Your task to perform on an android device: turn on wifi Image 0: 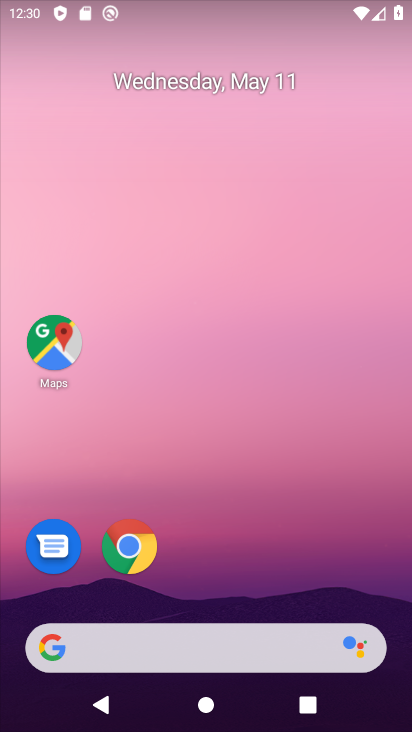
Step 0: drag from (251, 686) to (190, 313)
Your task to perform on an android device: turn on wifi Image 1: 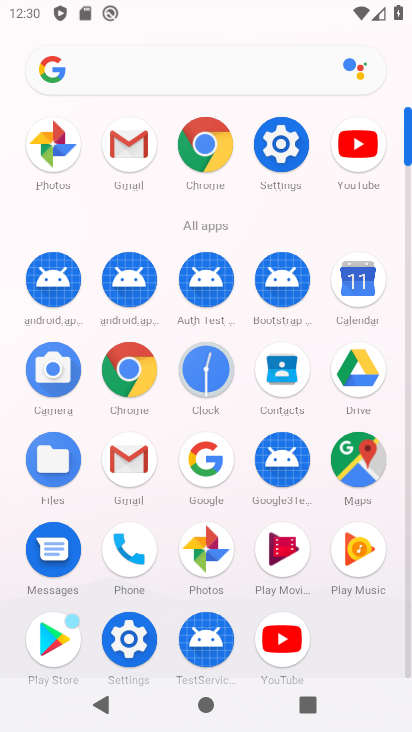
Step 1: click (271, 161)
Your task to perform on an android device: turn on wifi Image 2: 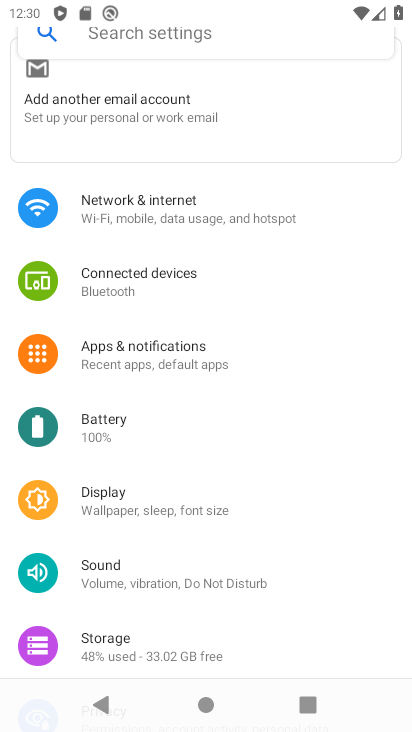
Step 2: click (157, 196)
Your task to perform on an android device: turn on wifi Image 3: 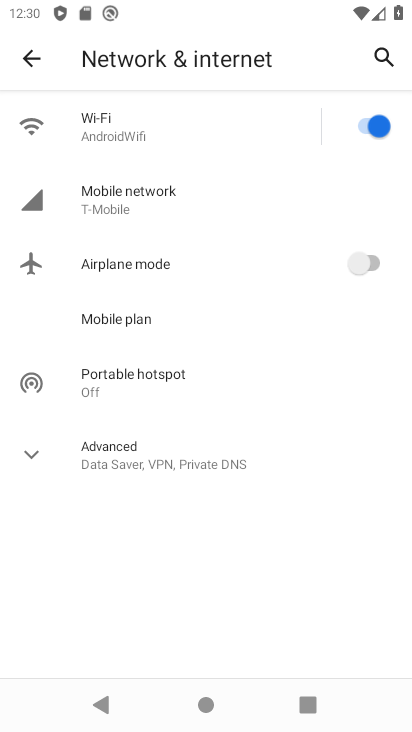
Step 3: click (161, 136)
Your task to perform on an android device: turn on wifi Image 4: 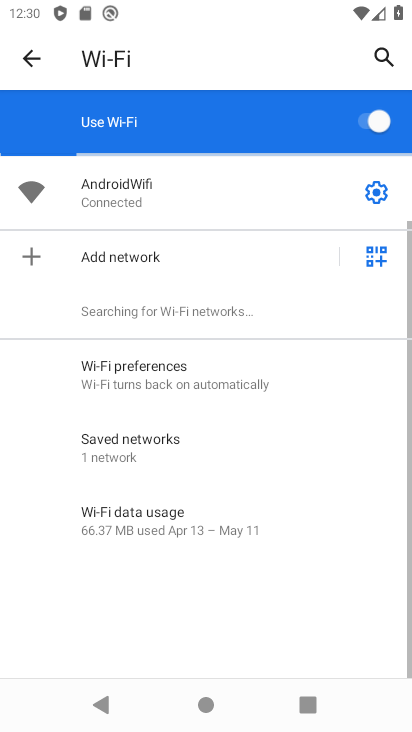
Step 4: click (380, 118)
Your task to perform on an android device: turn on wifi Image 5: 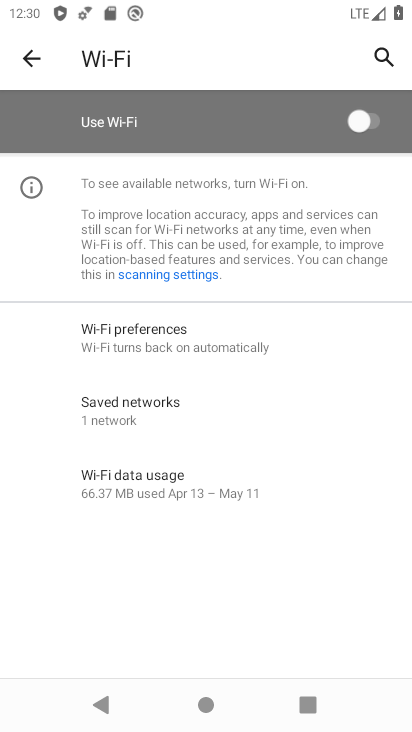
Step 5: click (378, 116)
Your task to perform on an android device: turn on wifi Image 6: 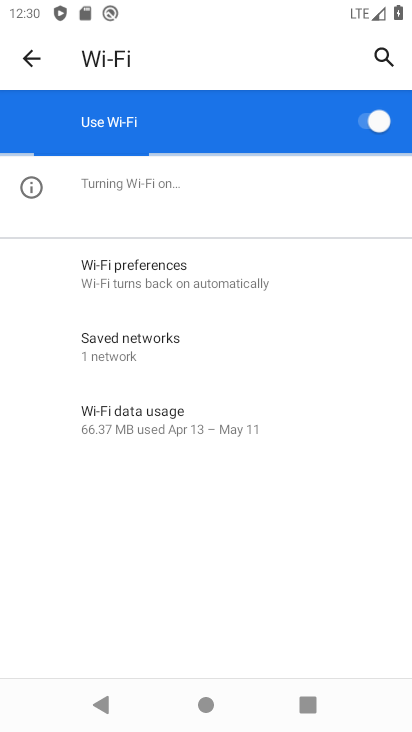
Step 6: task complete